Your task to perform on an android device: read, delete, or share a saved page in the chrome app Image 0: 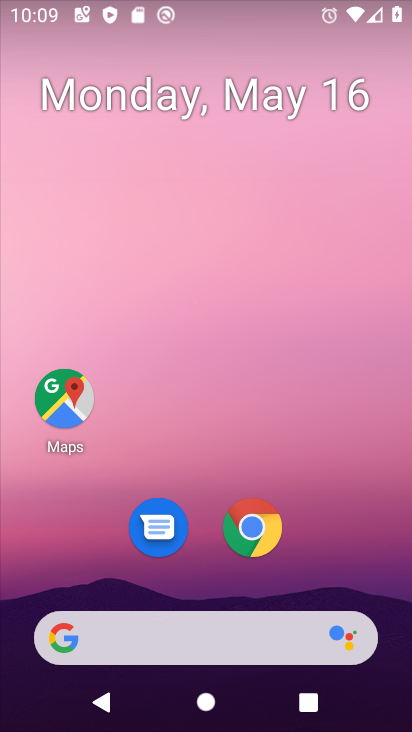
Step 0: click (245, 531)
Your task to perform on an android device: read, delete, or share a saved page in the chrome app Image 1: 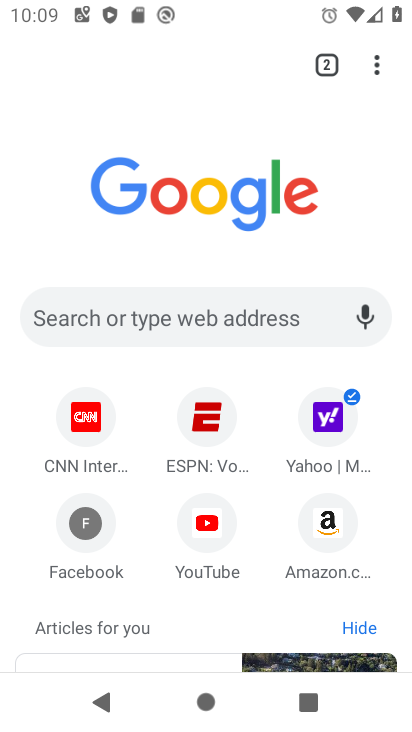
Step 1: click (376, 66)
Your task to perform on an android device: read, delete, or share a saved page in the chrome app Image 2: 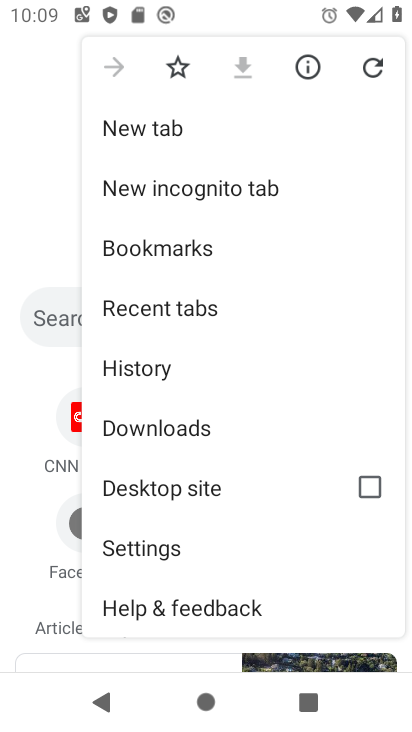
Step 2: click (165, 435)
Your task to perform on an android device: read, delete, or share a saved page in the chrome app Image 3: 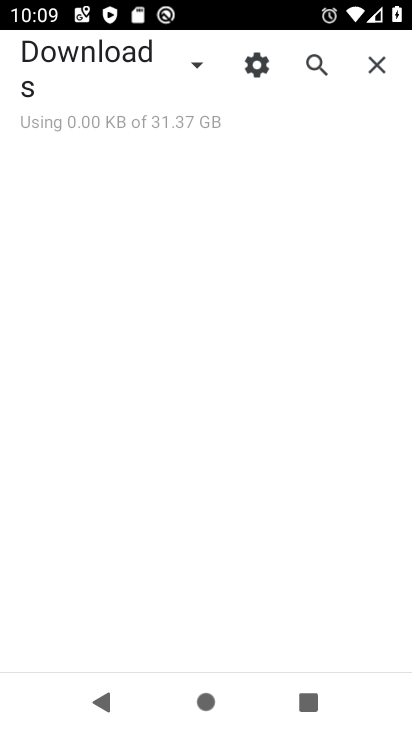
Step 3: click (192, 68)
Your task to perform on an android device: read, delete, or share a saved page in the chrome app Image 4: 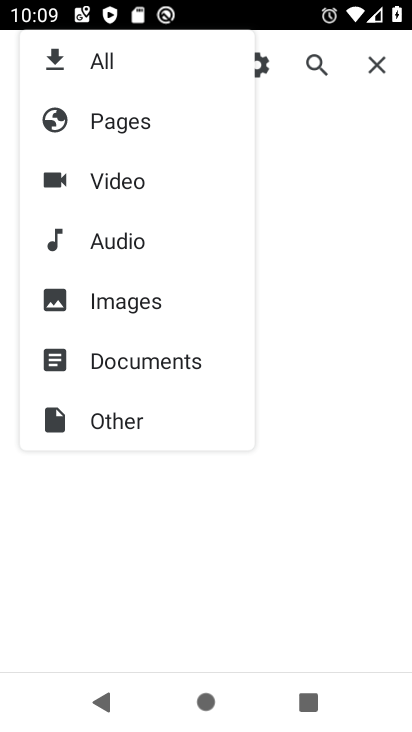
Step 4: click (120, 123)
Your task to perform on an android device: read, delete, or share a saved page in the chrome app Image 5: 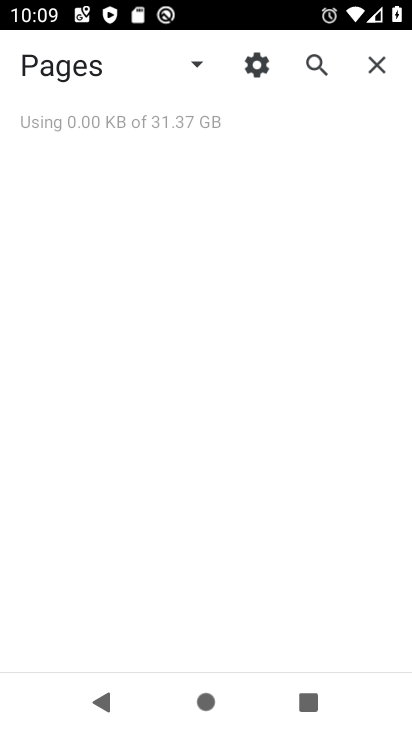
Step 5: task complete